Your task to perform on an android device: Show me the alarms in the clock app Image 0: 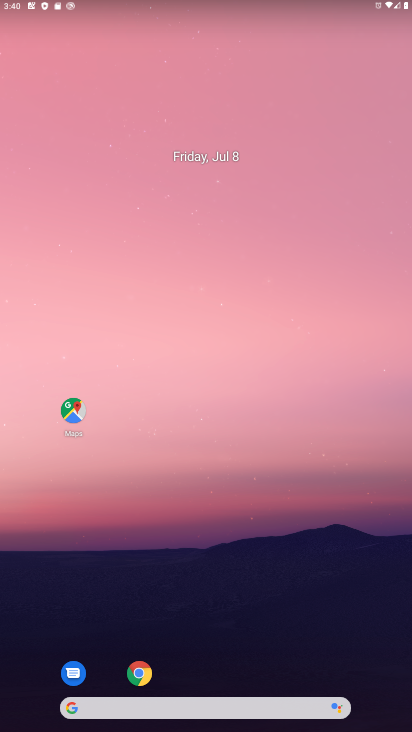
Step 0: drag from (206, 660) to (189, 323)
Your task to perform on an android device: Show me the alarms in the clock app Image 1: 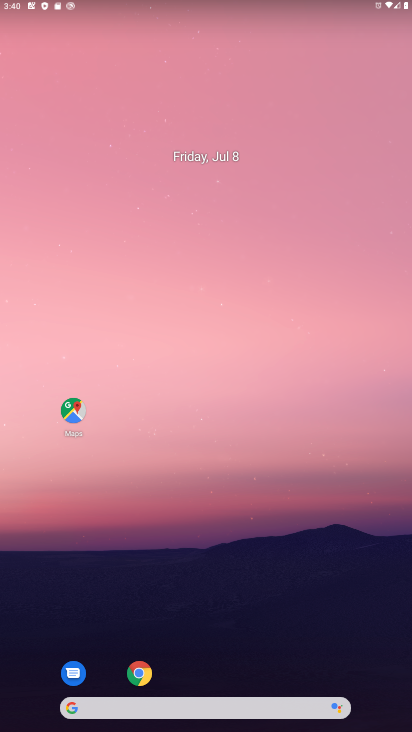
Step 1: drag from (195, 517) to (195, 63)
Your task to perform on an android device: Show me the alarms in the clock app Image 2: 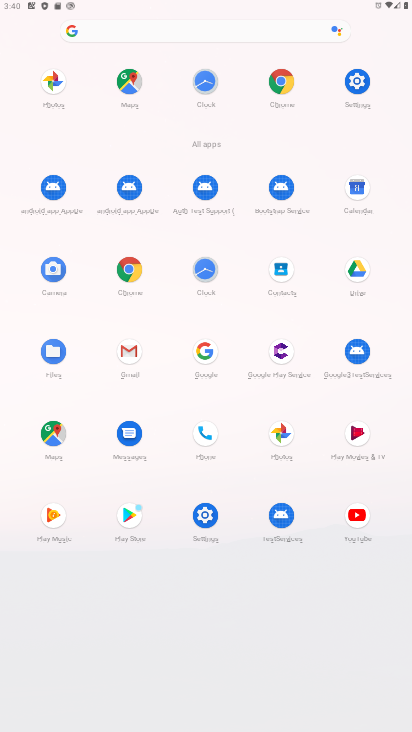
Step 2: click (204, 271)
Your task to perform on an android device: Show me the alarms in the clock app Image 3: 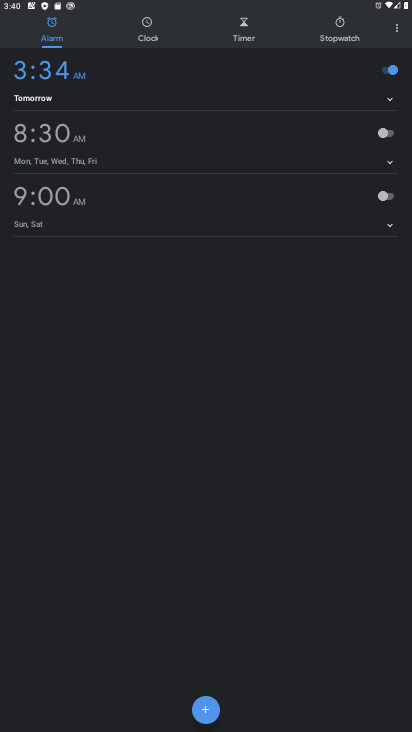
Step 3: task complete